Your task to perform on an android device: Go to accessibility settings Image 0: 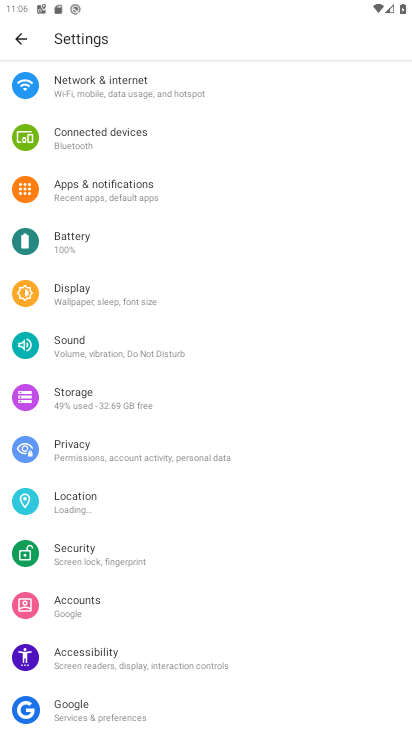
Step 0: click (184, 650)
Your task to perform on an android device: Go to accessibility settings Image 1: 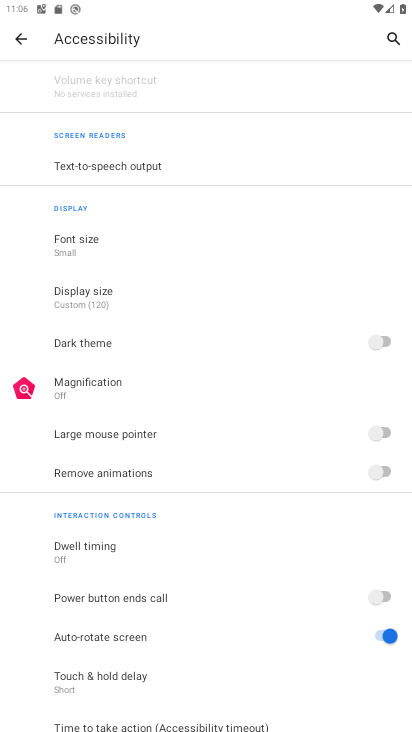
Step 1: task complete